Your task to perform on an android device: Open Youtube and go to "Your channel" Image 0: 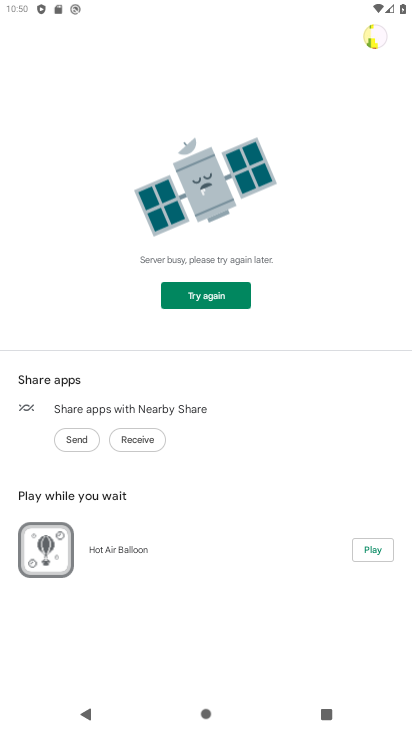
Step 0: press home button
Your task to perform on an android device: Open Youtube and go to "Your channel" Image 1: 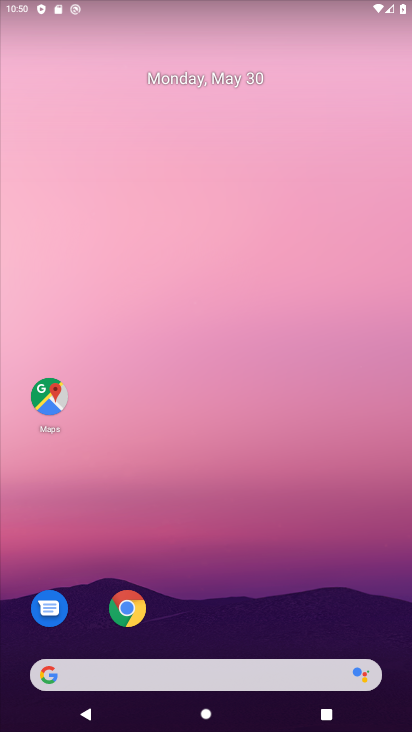
Step 1: drag from (337, 652) to (304, 7)
Your task to perform on an android device: Open Youtube and go to "Your channel" Image 2: 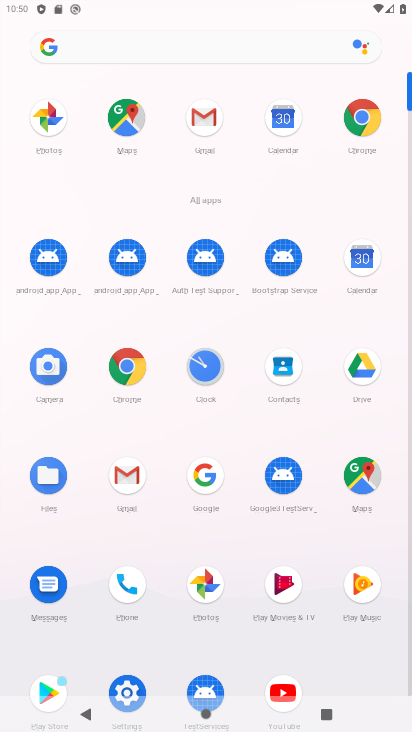
Step 2: click (288, 688)
Your task to perform on an android device: Open Youtube and go to "Your channel" Image 3: 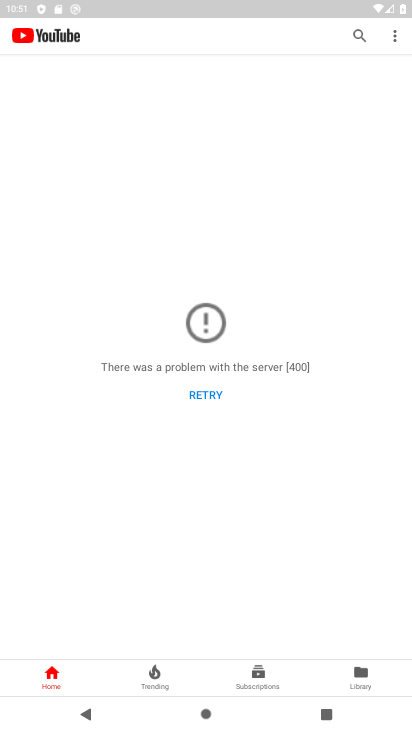
Step 3: click (213, 396)
Your task to perform on an android device: Open Youtube and go to "Your channel" Image 4: 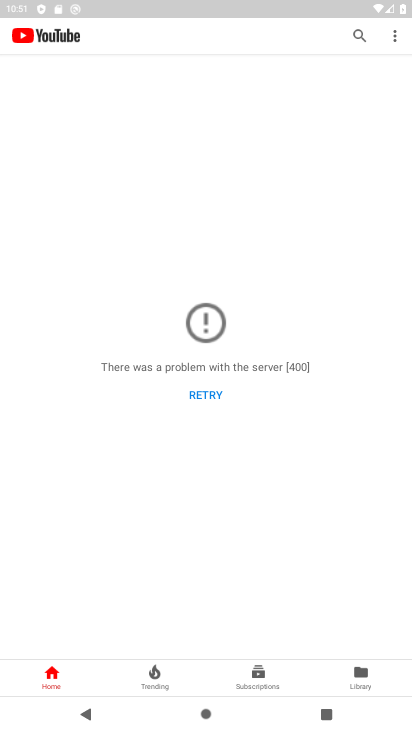
Step 4: click (210, 396)
Your task to perform on an android device: Open Youtube and go to "Your channel" Image 5: 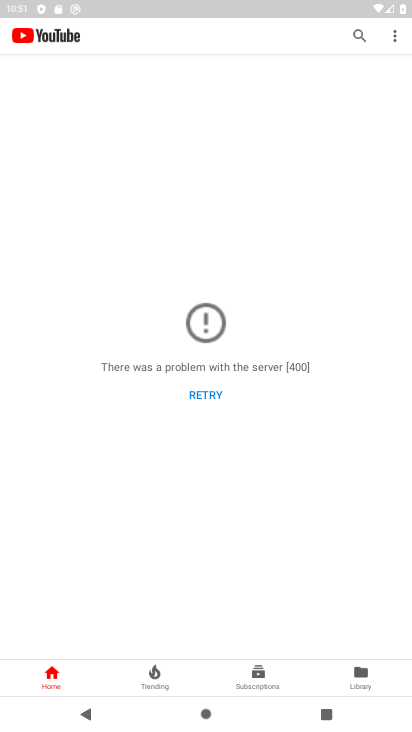
Step 5: task complete